Your task to perform on an android device: turn on location history Image 0: 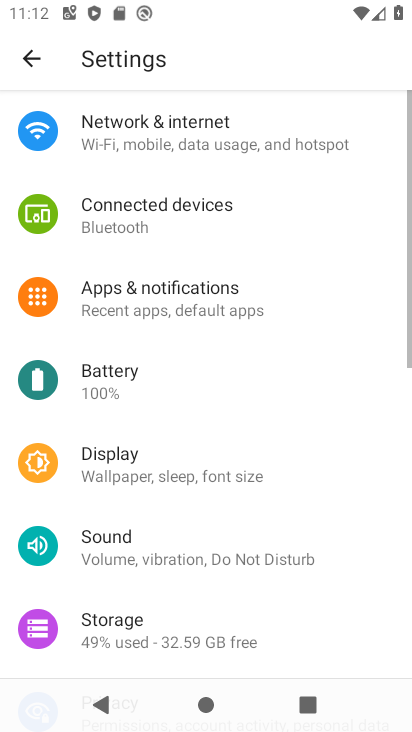
Step 0: drag from (204, 542) to (268, 181)
Your task to perform on an android device: turn on location history Image 1: 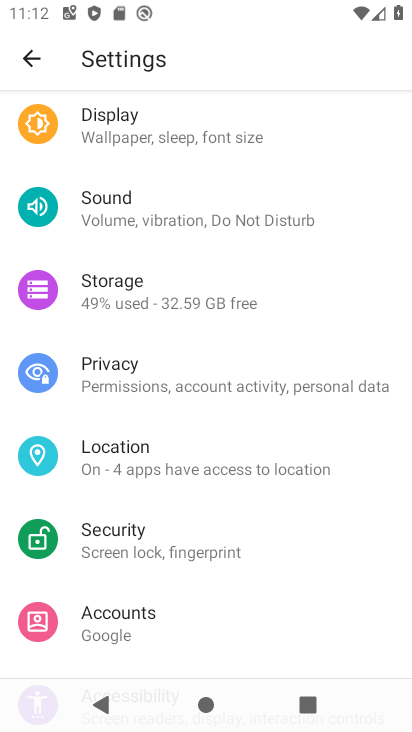
Step 1: click (142, 441)
Your task to perform on an android device: turn on location history Image 2: 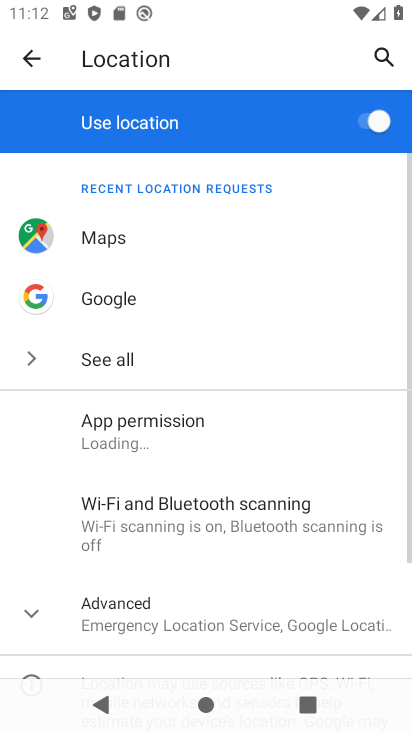
Step 2: click (81, 631)
Your task to perform on an android device: turn on location history Image 3: 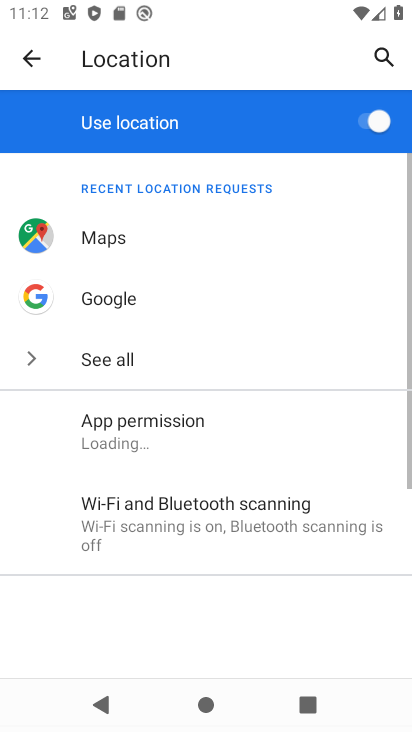
Step 3: drag from (272, 561) to (264, 147)
Your task to perform on an android device: turn on location history Image 4: 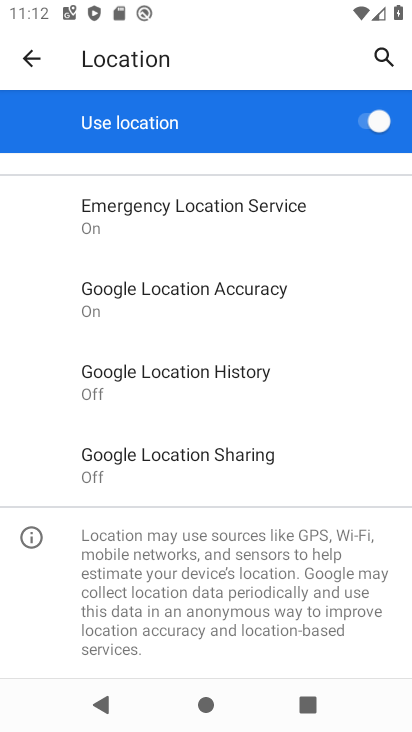
Step 4: click (160, 380)
Your task to perform on an android device: turn on location history Image 5: 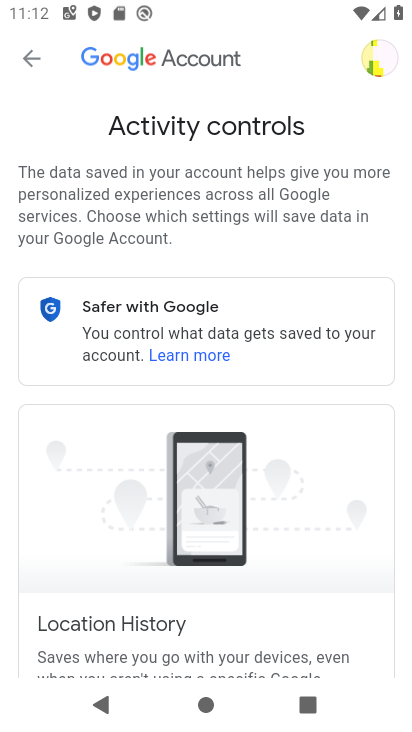
Step 5: drag from (354, 514) to (355, 14)
Your task to perform on an android device: turn on location history Image 6: 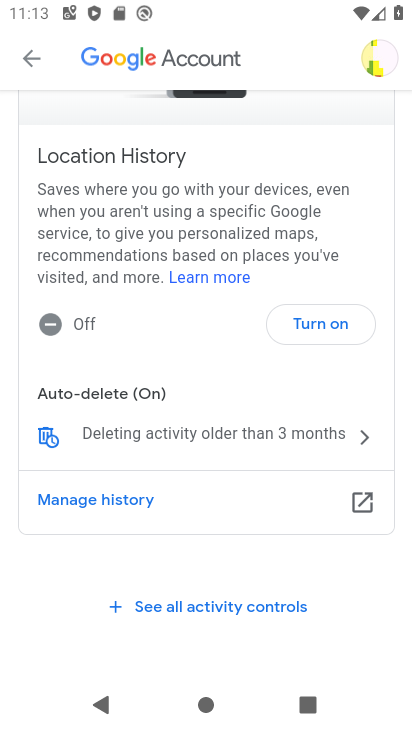
Step 6: click (314, 330)
Your task to perform on an android device: turn on location history Image 7: 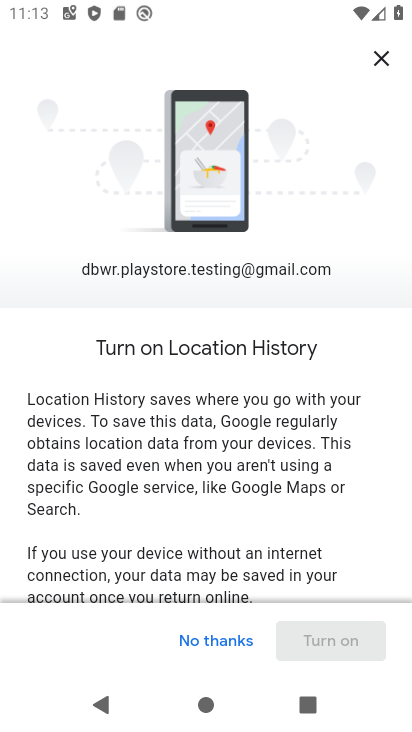
Step 7: drag from (358, 523) to (361, 1)
Your task to perform on an android device: turn on location history Image 8: 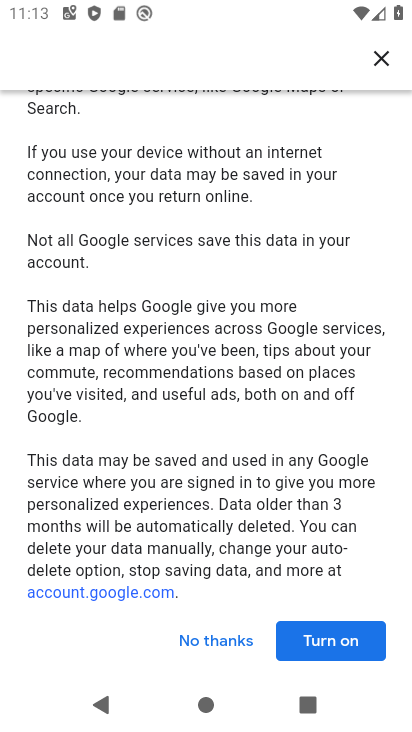
Step 8: click (327, 630)
Your task to perform on an android device: turn on location history Image 9: 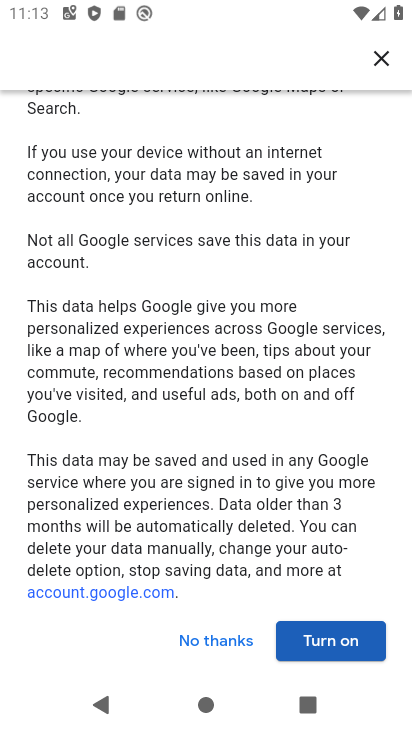
Step 9: click (335, 644)
Your task to perform on an android device: turn on location history Image 10: 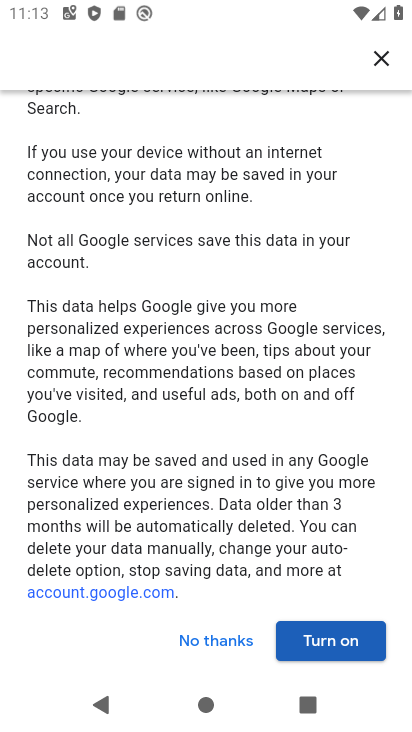
Step 10: click (319, 630)
Your task to perform on an android device: turn on location history Image 11: 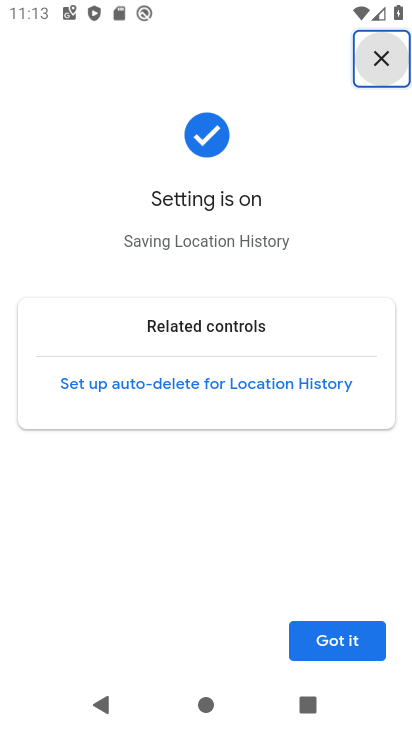
Step 11: task complete